Your task to perform on an android device: Check the news Image 0: 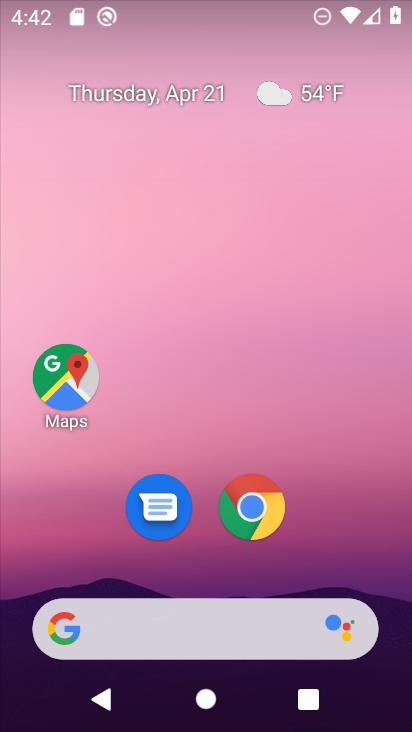
Step 0: drag from (357, 534) to (379, 112)
Your task to perform on an android device: Check the news Image 1: 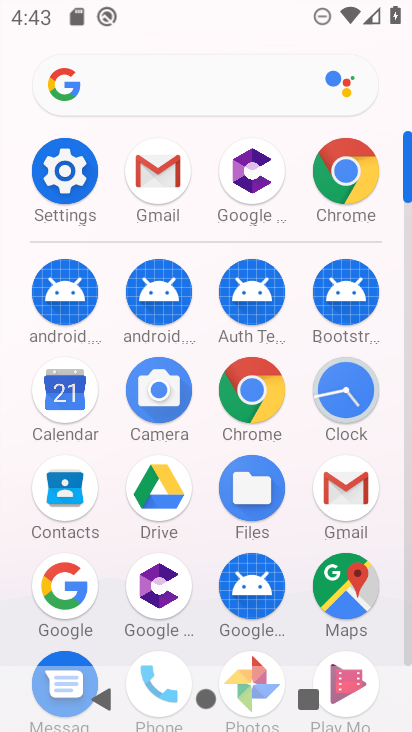
Step 1: click (353, 182)
Your task to perform on an android device: Check the news Image 2: 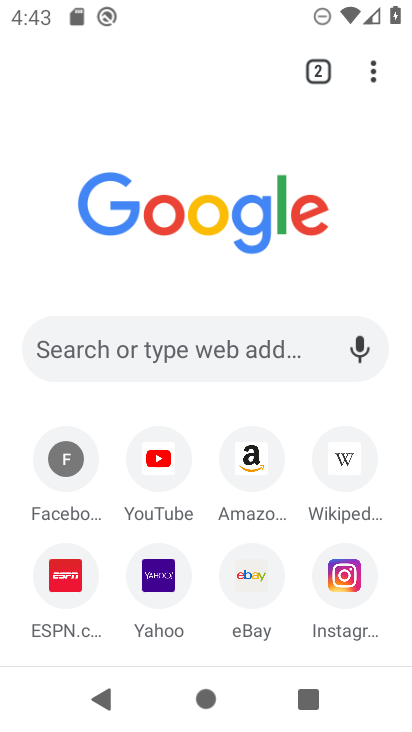
Step 2: task complete